Your task to perform on an android device: Open settings Image 0: 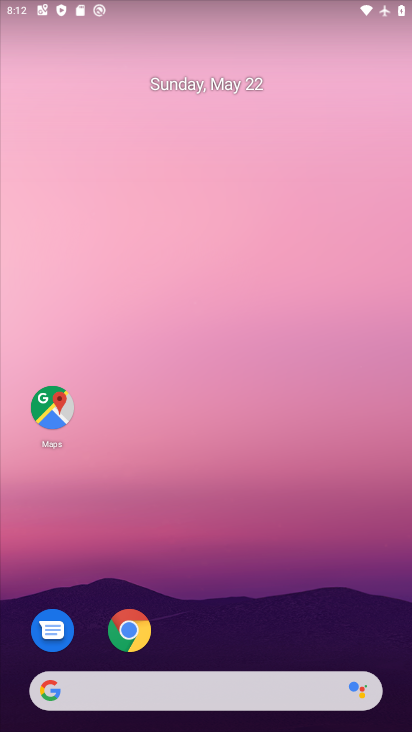
Step 0: drag from (361, 483) to (304, 48)
Your task to perform on an android device: Open settings Image 1: 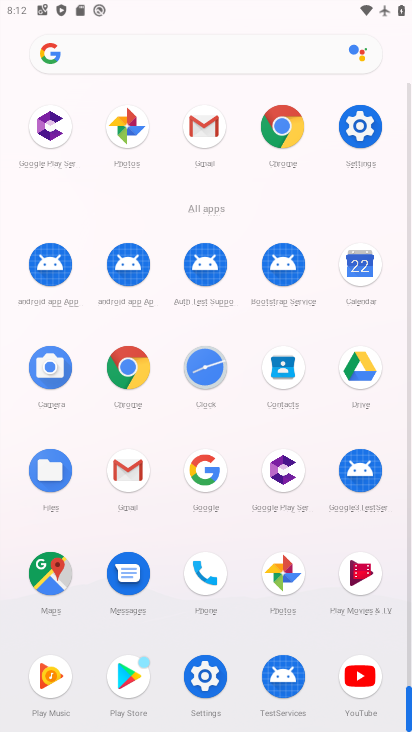
Step 1: click (206, 675)
Your task to perform on an android device: Open settings Image 2: 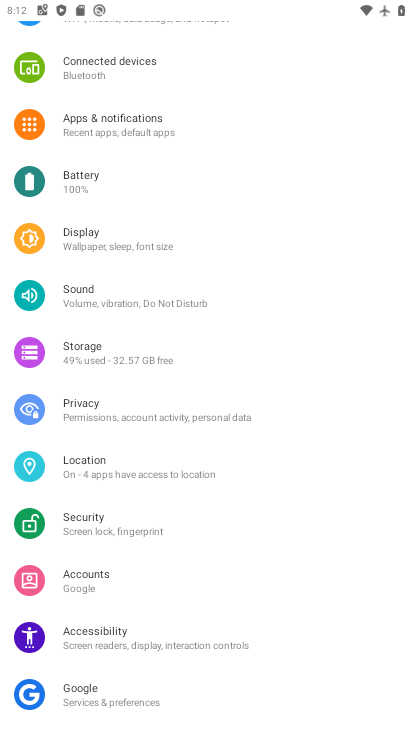
Step 2: task complete